Your task to perform on an android device: Open privacy settings Image 0: 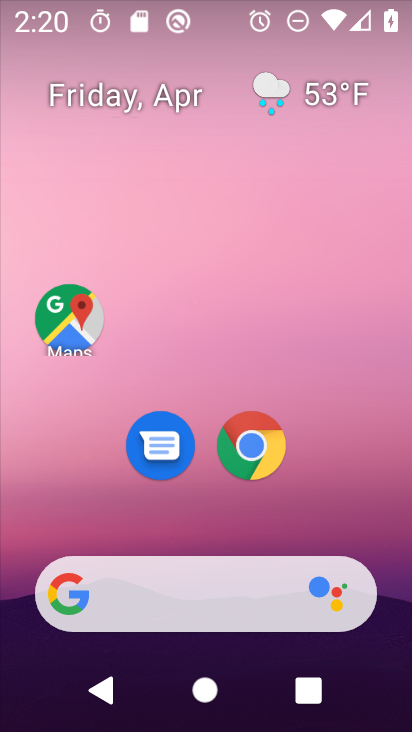
Step 0: drag from (373, 524) to (371, 268)
Your task to perform on an android device: Open privacy settings Image 1: 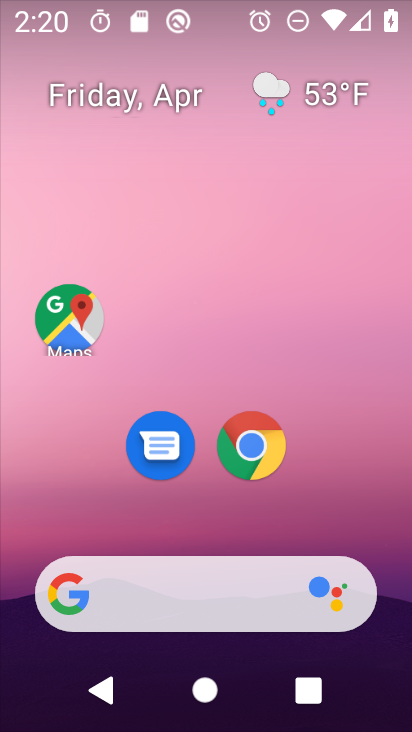
Step 1: drag from (375, 510) to (385, 101)
Your task to perform on an android device: Open privacy settings Image 2: 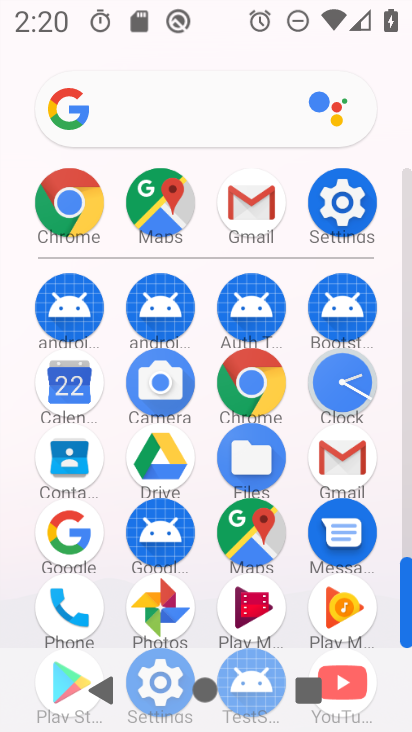
Step 2: click (351, 208)
Your task to perform on an android device: Open privacy settings Image 3: 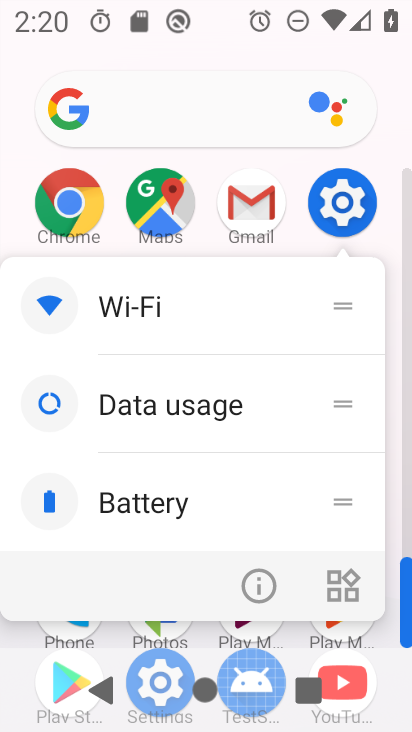
Step 3: click (351, 208)
Your task to perform on an android device: Open privacy settings Image 4: 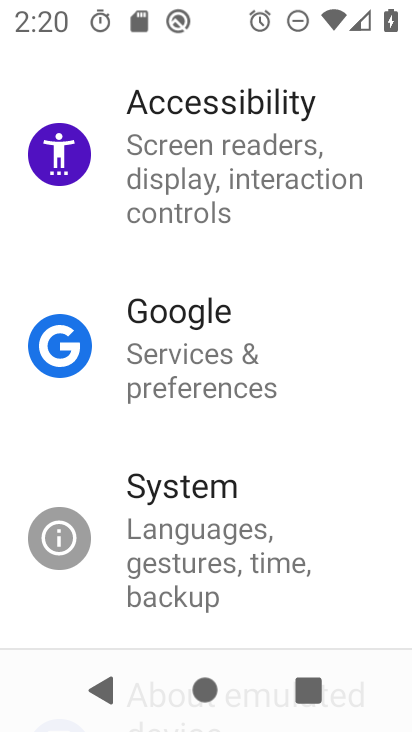
Step 4: drag from (351, 290) to (359, 398)
Your task to perform on an android device: Open privacy settings Image 5: 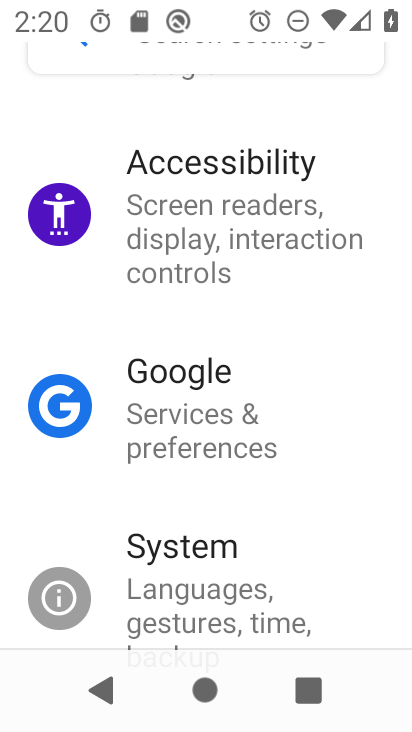
Step 5: drag from (384, 198) to (385, 439)
Your task to perform on an android device: Open privacy settings Image 6: 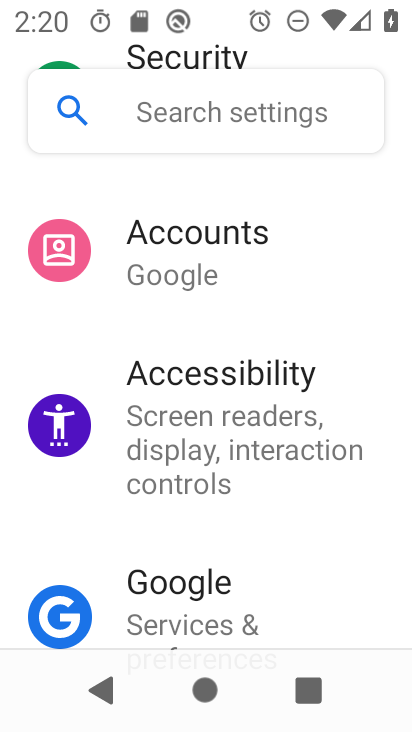
Step 6: drag from (372, 259) to (371, 479)
Your task to perform on an android device: Open privacy settings Image 7: 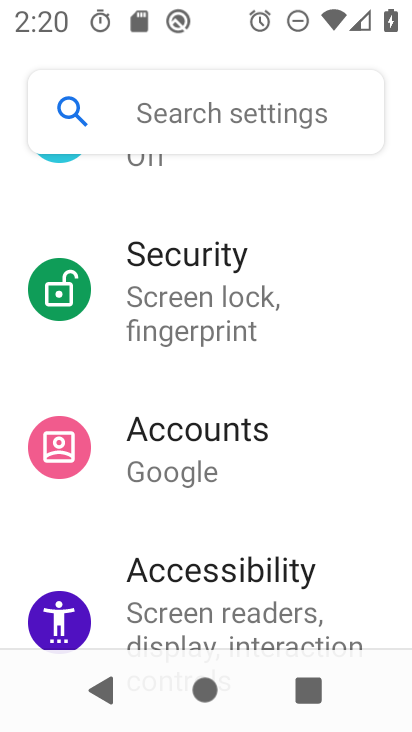
Step 7: drag from (369, 257) to (364, 425)
Your task to perform on an android device: Open privacy settings Image 8: 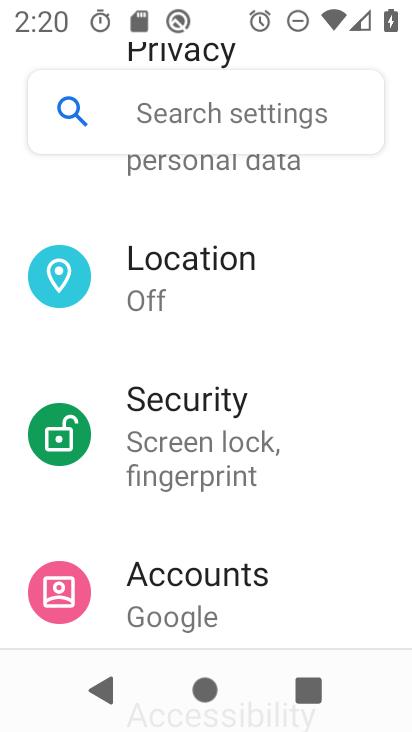
Step 8: drag from (361, 295) to (356, 420)
Your task to perform on an android device: Open privacy settings Image 9: 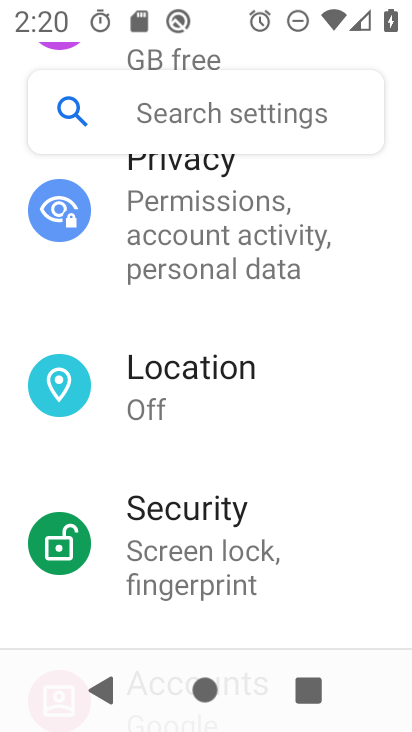
Step 9: drag from (355, 226) to (352, 404)
Your task to perform on an android device: Open privacy settings Image 10: 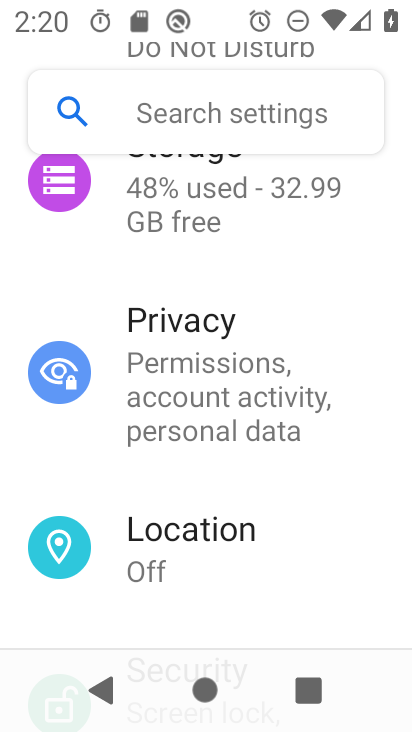
Step 10: drag from (361, 224) to (345, 351)
Your task to perform on an android device: Open privacy settings Image 11: 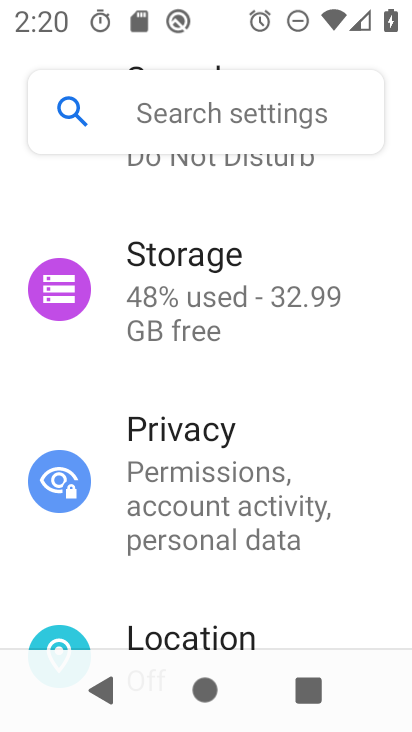
Step 11: drag from (370, 288) to (378, 426)
Your task to perform on an android device: Open privacy settings Image 12: 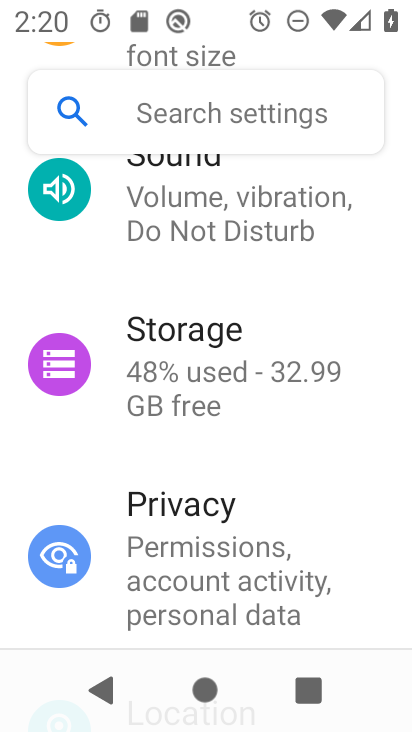
Step 12: drag from (360, 316) to (358, 509)
Your task to perform on an android device: Open privacy settings Image 13: 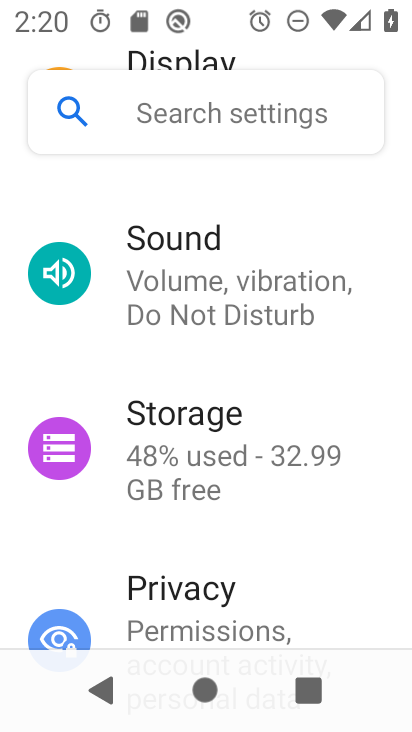
Step 13: drag from (369, 229) to (347, 489)
Your task to perform on an android device: Open privacy settings Image 14: 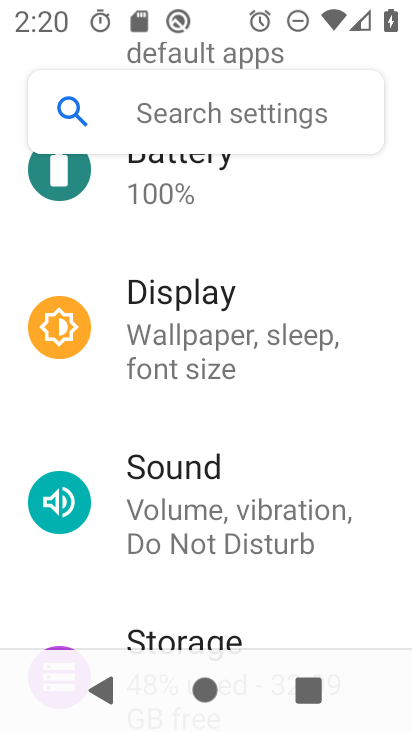
Step 14: drag from (369, 256) to (365, 463)
Your task to perform on an android device: Open privacy settings Image 15: 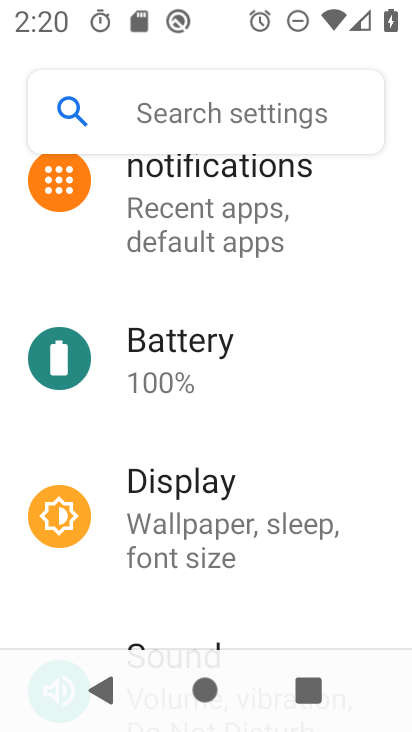
Step 15: drag from (366, 508) to (381, 291)
Your task to perform on an android device: Open privacy settings Image 16: 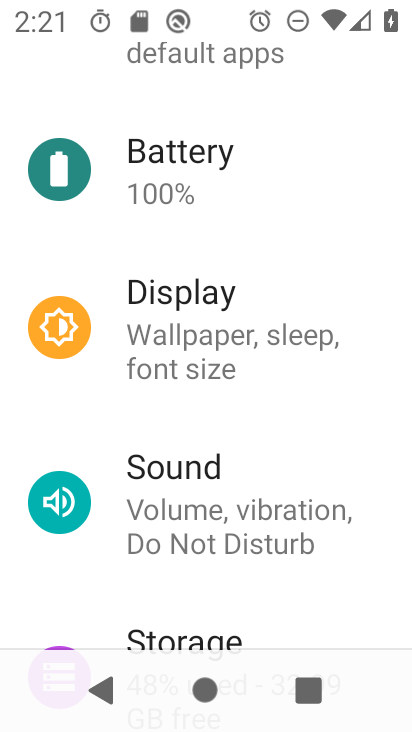
Step 16: drag from (362, 570) to (367, 332)
Your task to perform on an android device: Open privacy settings Image 17: 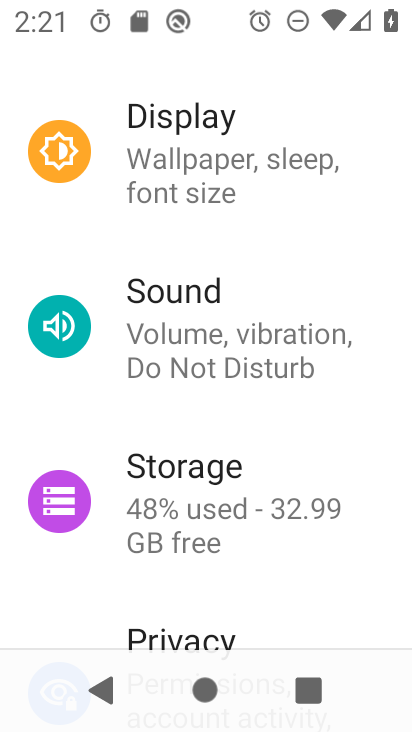
Step 17: drag from (364, 576) to (368, 361)
Your task to perform on an android device: Open privacy settings Image 18: 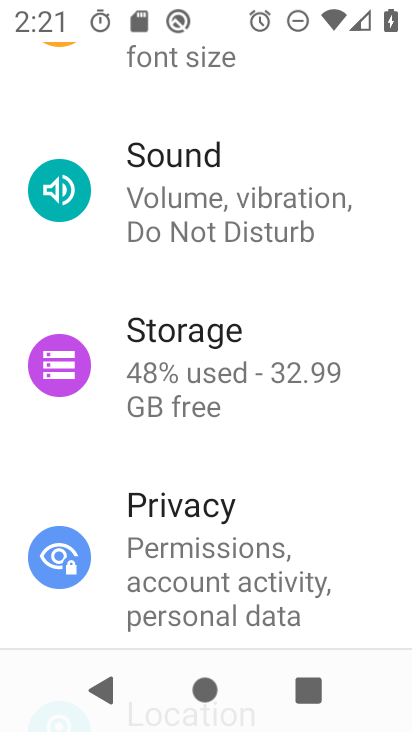
Step 18: drag from (348, 578) to (356, 430)
Your task to perform on an android device: Open privacy settings Image 19: 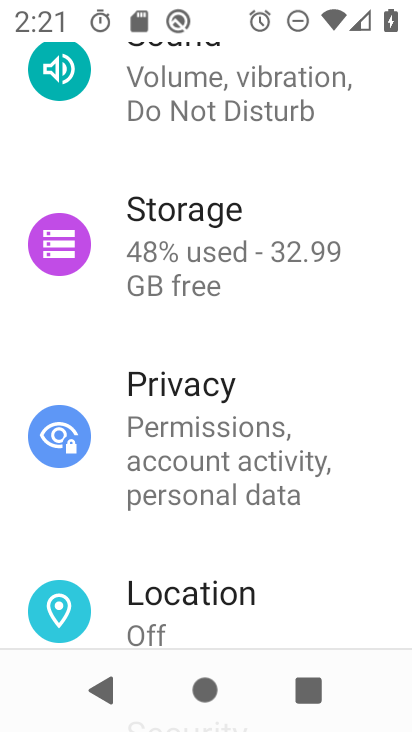
Step 19: drag from (334, 598) to (354, 439)
Your task to perform on an android device: Open privacy settings Image 20: 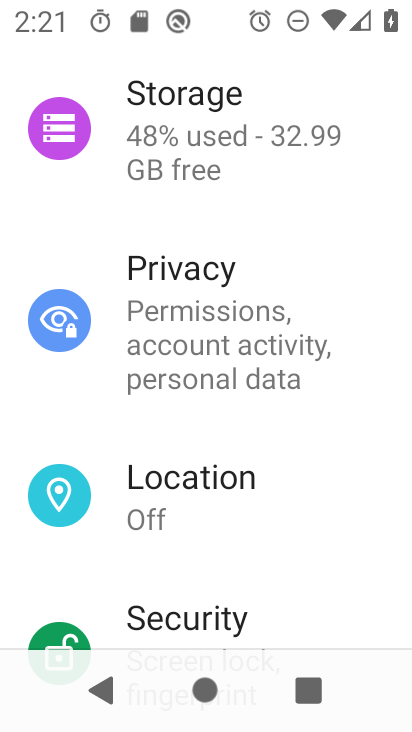
Step 20: drag from (348, 563) to (344, 338)
Your task to perform on an android device: Open privacy settings Image 21: 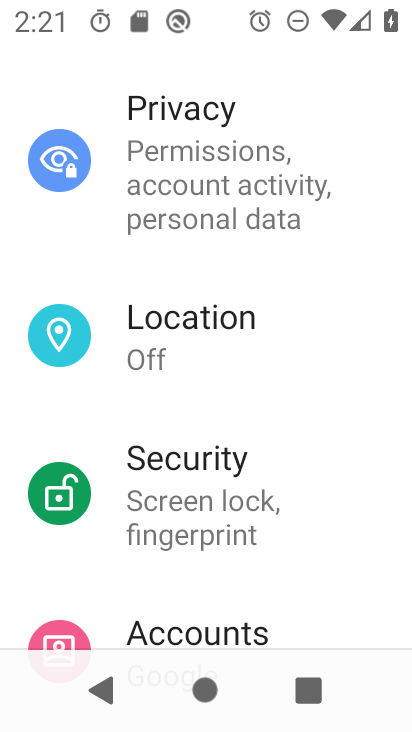
Step 21: drag from (337, 536) to (348, 393)
Your task to perform on an android device: Open privacy settings Image 22: 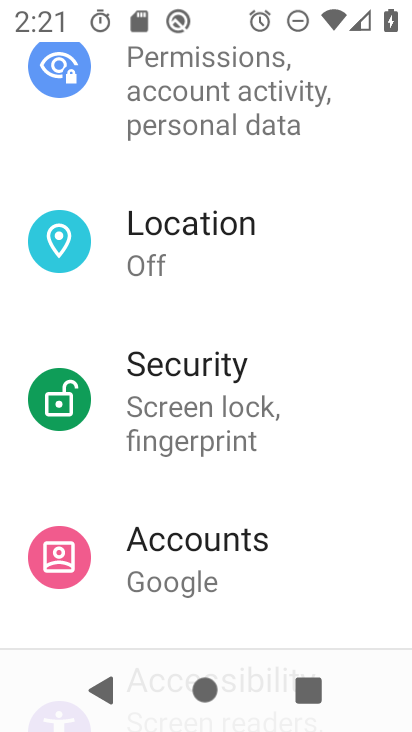
Step 22: drag from (360, 553) to (354, 371)
Your task to perform on an android device: Open privacy settings Image 23: 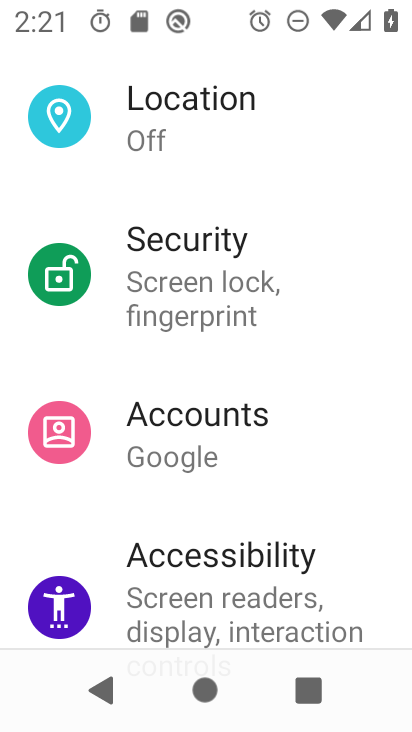
Step 23: drag from (338, 220) to (323, 443)
Your task to perform on an android device: Open privacy settings Image 24: 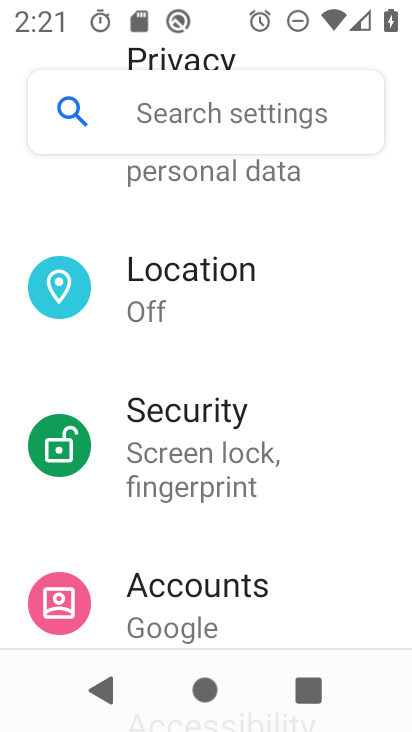
Step 24: drag from (321, 240) to (300, 446)
Your task to perform on an android device: Open privacy settings Image 25: 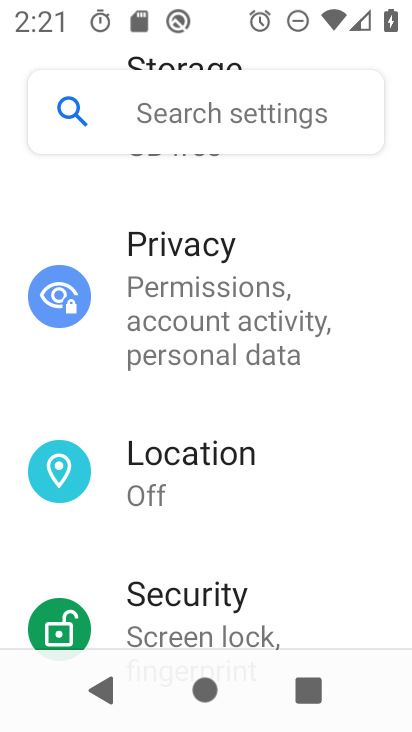
Step 25: click (191, 306)
Your task to perform on an android device: Open privacy settings Image 26: 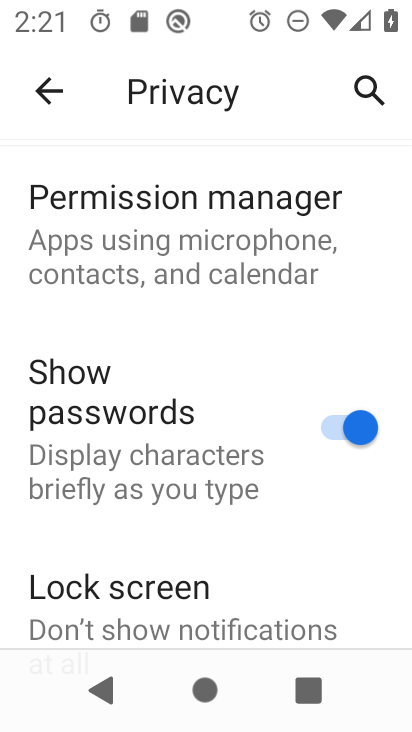
Step 26: task complete